Your task to perform on an android device: Open wifi settings Image 0: 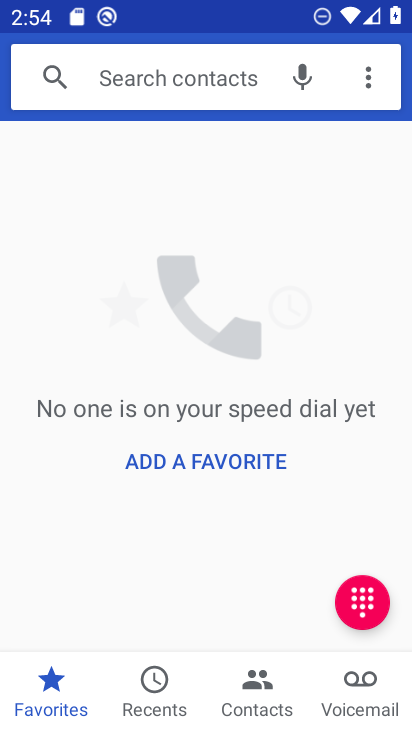
Step 0: press home button
Your task to perform on an android device: Open wifi settings Image 1: 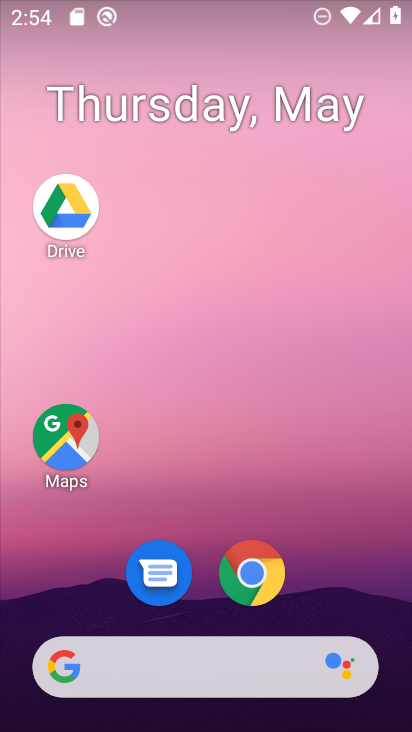
Step 1: drag from (311, 462) to (127, 60)
Your task to perform on an android device: Open wifi settings Image 2: 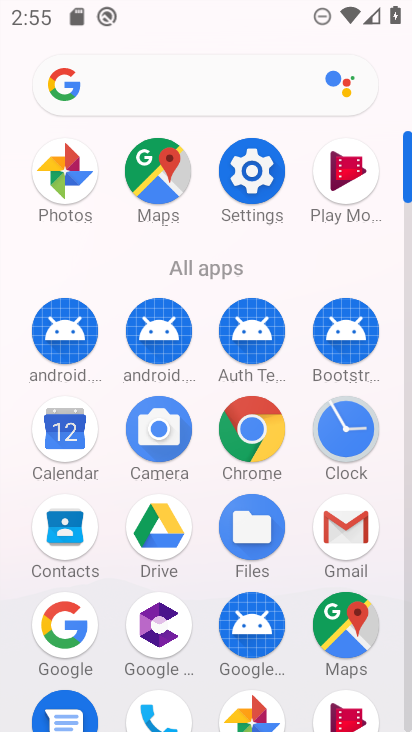
Step 2: click (249, 171)
Your task to perform on an android device: Open wifi settings Image 3: 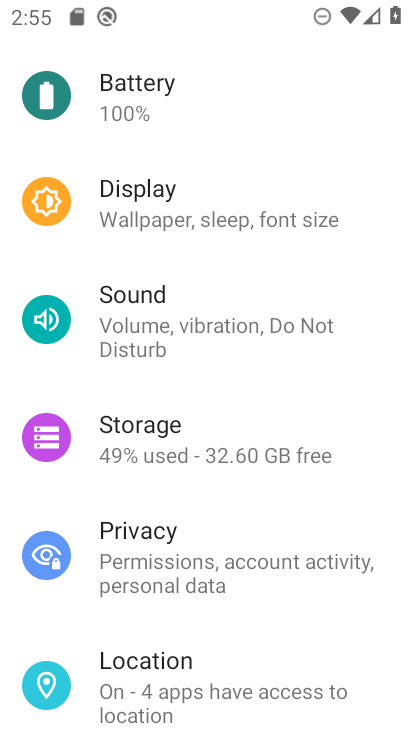
Step 3: drag from (225, 288) to (204, 728)
Your task to perform on an android device: Open wifi settings Image 4: 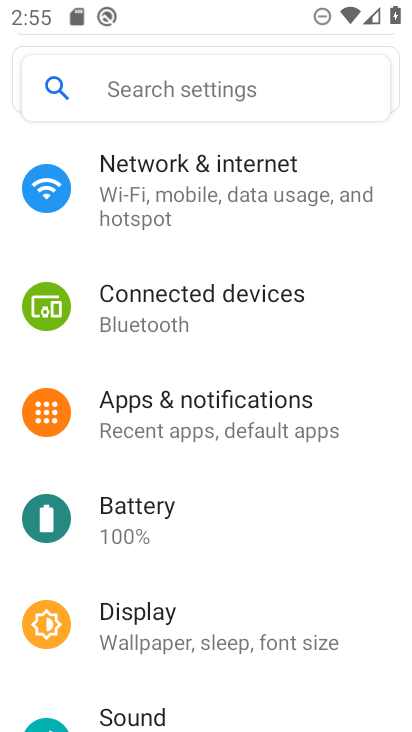
Step 4: click (160, 175)
Your task to perform on an android device: Open wifi settings Image 5: 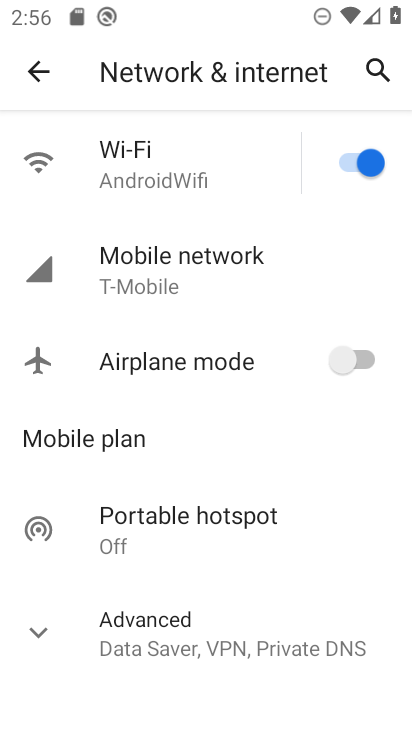
Step 5: click (151, 157)
Your task to perform on an android device: Open wifi settings Image 6: 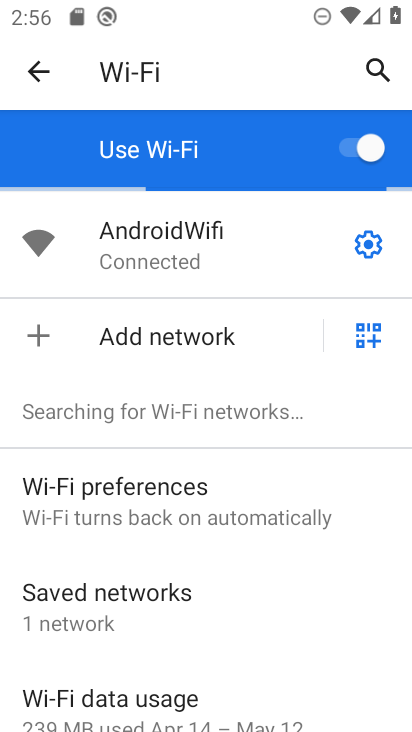
Step 6: task complete